Your task to perform on an android device: see tabs open on other devices in the chrome app Image 0: 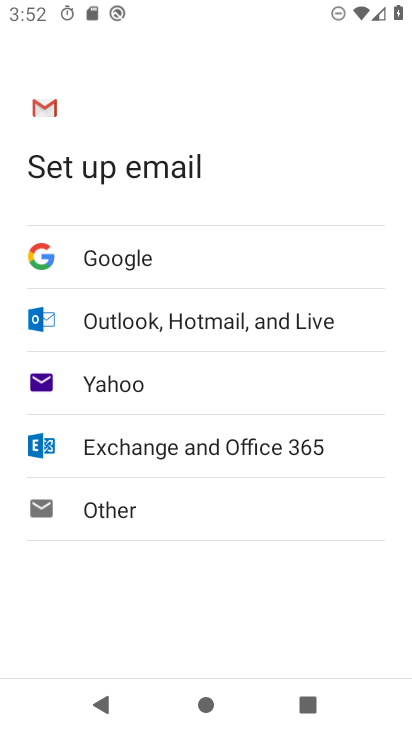
Step 0: press home button
Your task to perform on an android device: see tabs open on other devices in the chrome app Image 1: 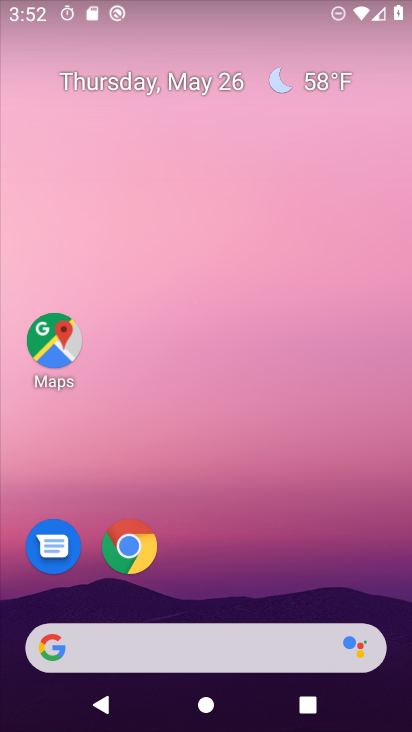
Step 1: click (131, 542)
Your task to perform on an android device: see tabs open on other devices in the chrome app Image 2: 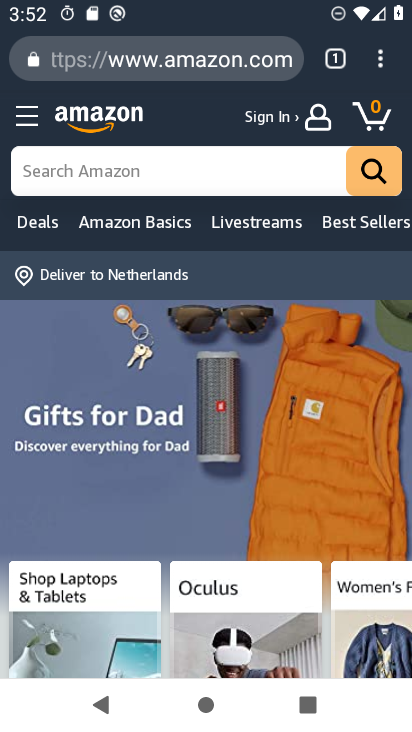
Step 2: click (375, 64)
Your task to perform on an android device: see tabs open on other devices in the chrome app Image 3: 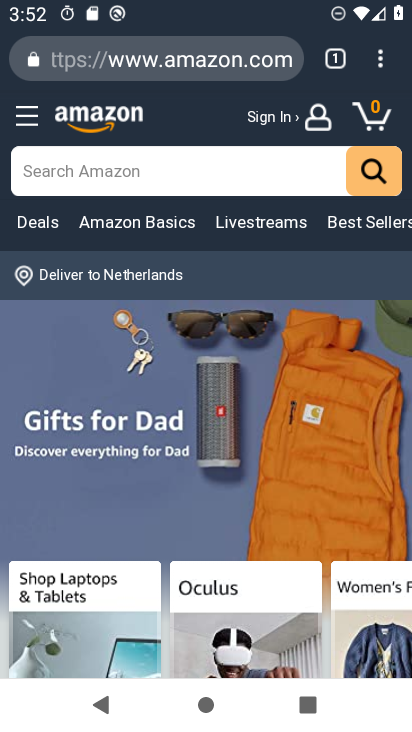
Step 3: click (376, 60)
Your task to perform on an android device: see tabs open on other devices in the chrome app Image 4: 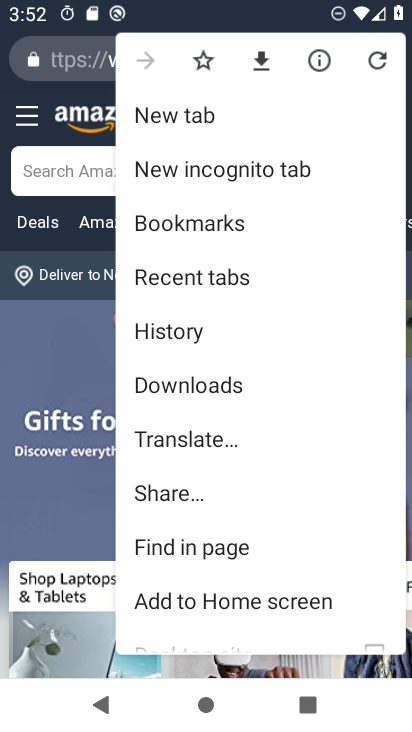
Step 4: click (257, 274)
Your task to perform on an android device: see tabs open on other devices in the chrome app Image 5: 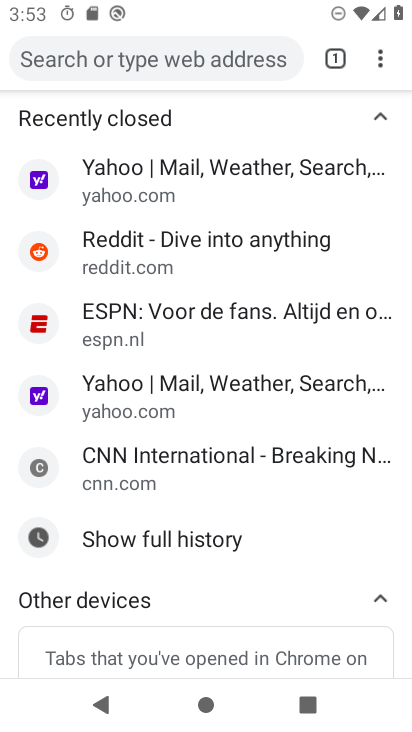
Step 5: task complete